Your task to perform on an android device: Turn off the flashlight Image 0: 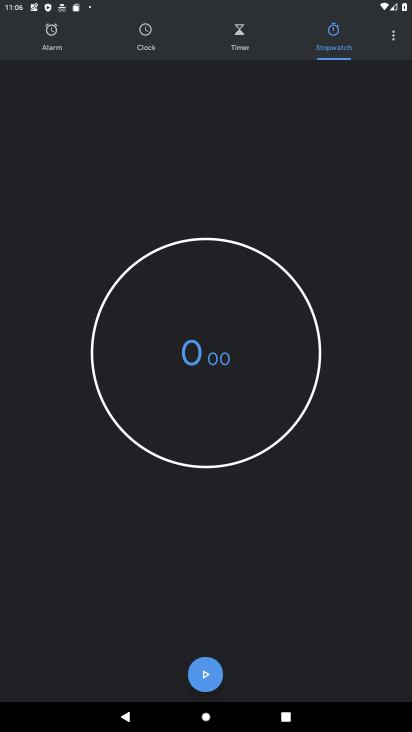
Step 0: press home button
Your task to perform on an android device: Turn off the flashlight Image 1: 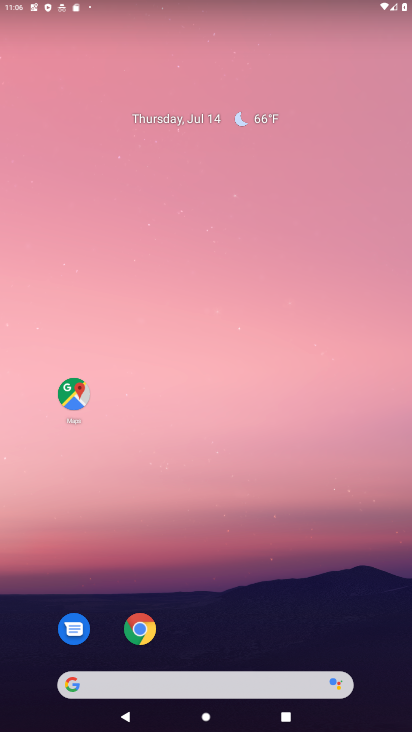
Step 1: task complete